Your task to perform on an android device: Play the last video I watched on Youtube Image 0: 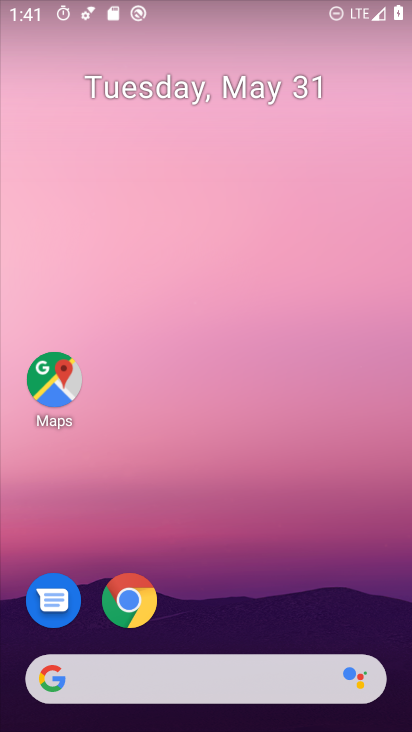
Step 0: drag from (294, 706) to (318, 0)
Your task to perform on an android device: Play the last video I watched on Youtube Image 1: 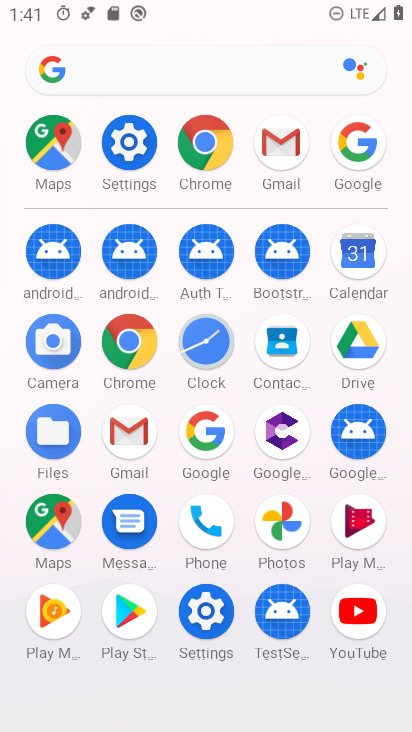
Step 1: click (355, 605)
Your task to perform on an android device: Play the last video I watched on Youtube Image 2: 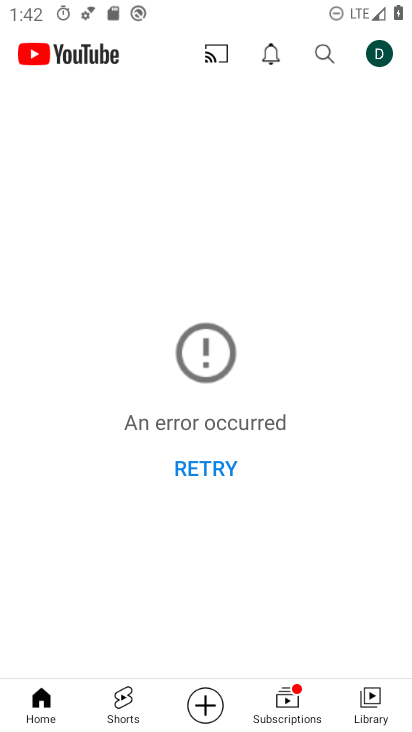
Step 2: click (369, 704)
Your task to perform on an android device: Play the last video I watched on Youtube Image 3: 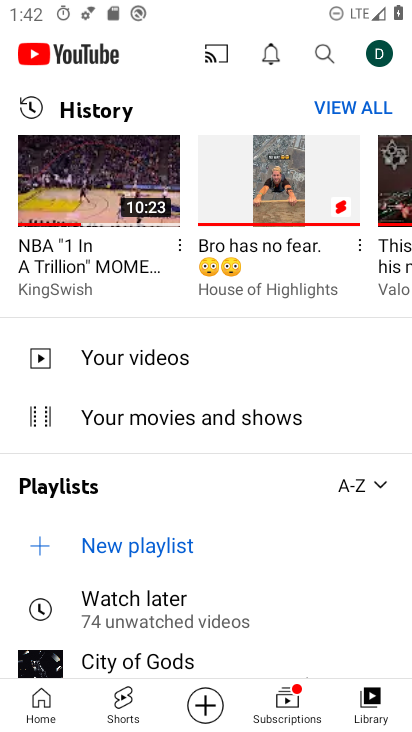
Step 3: click (111, 201)
Your task to perform on an android device: Play the last video I watched on Youtube Image 4: 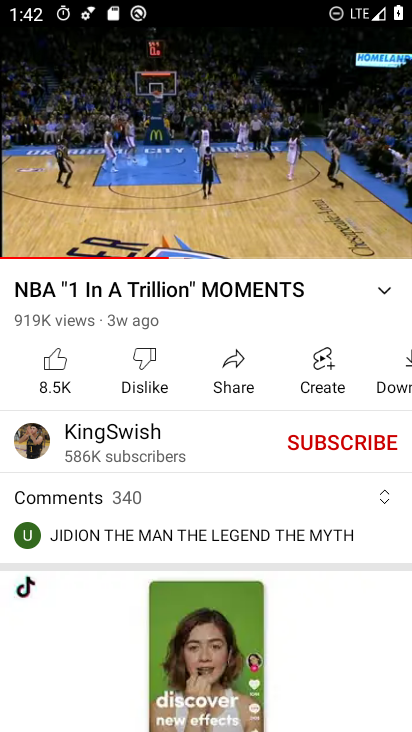
Step 4: task complete